Your task to perform on an android device: Go to sound settings Image 0: 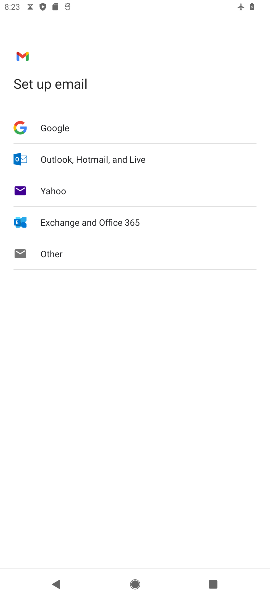
Step 0: press home button
Your task to perform on an android device: Go to sound settings Image 1: 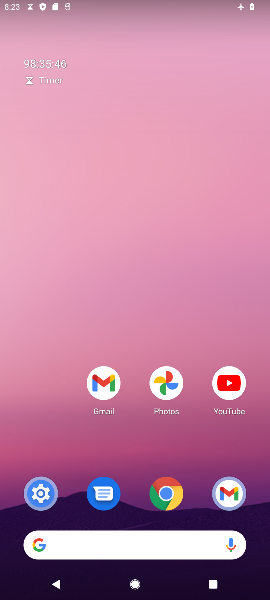
Step 1: drag from (95, 485) to (124, 107)
Your task to perform on an android device: Go to sound settings Image 2: 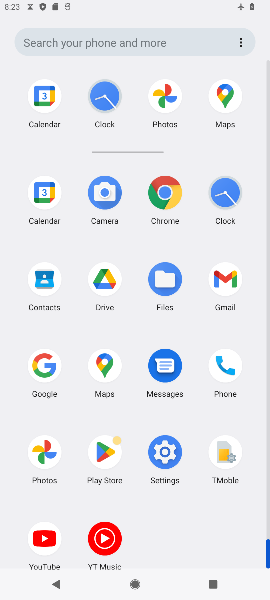
Step 2: click (161, 448)
Your task to perform on an android device: Go to sound settings Image 3: 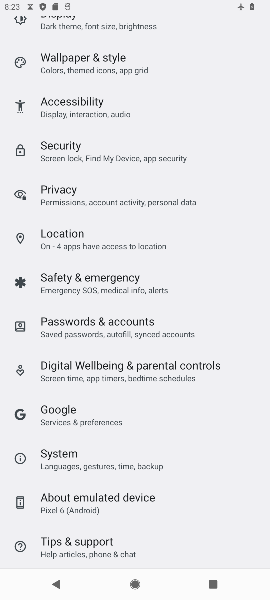
Step 3: drag from (88, 127) to (79, 454)
Your task to perform on an android device: Go to sound settings Image 4: 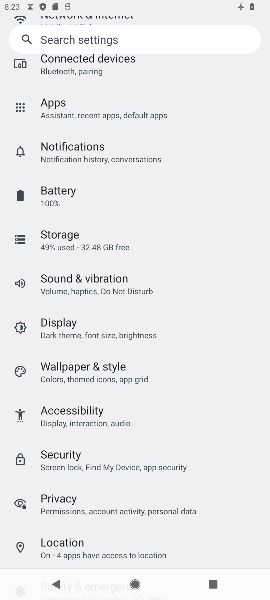
Step 4: click (75, 274)
Your task to perform on an android device: Go to sound settings Image 5: 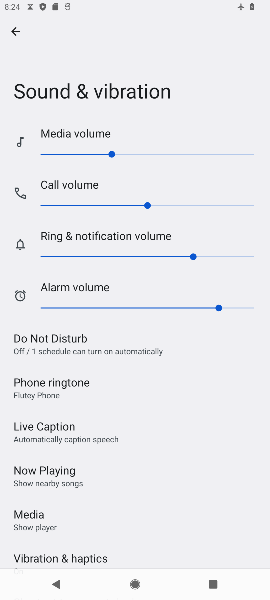
Step 5: task complete